Your task to perform on an android device: move a message to another label in the gmail app Image 0: 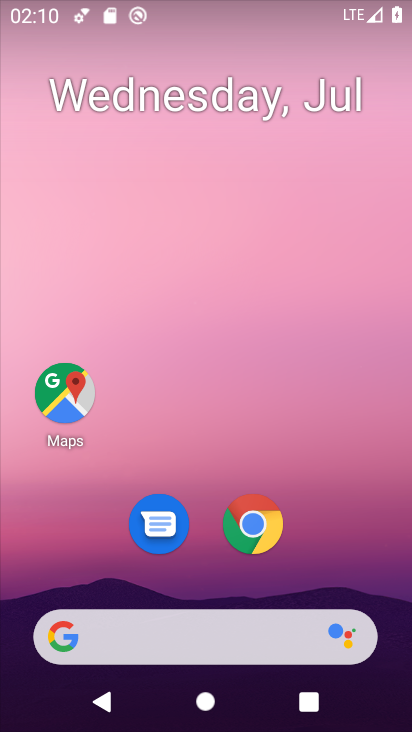
Step 0: drag from (316, 543) to (346, 58)
Your task to perform on an android device: move a message to another label in the gmail app Image 1: 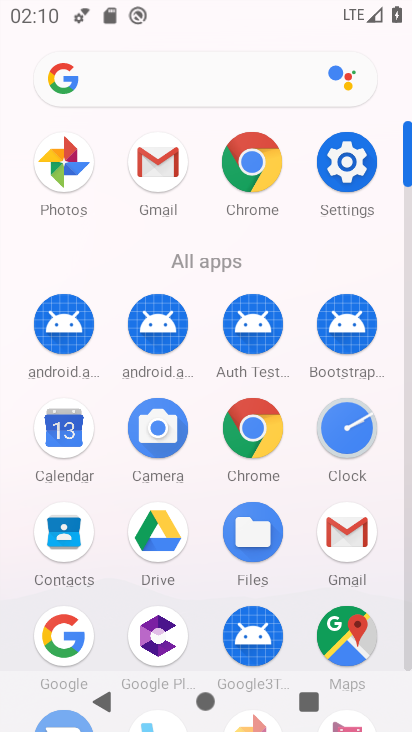
Step 1: click (161, 175)
Your task to perform on an android device: move a message to another label in the gmail app Image 2: 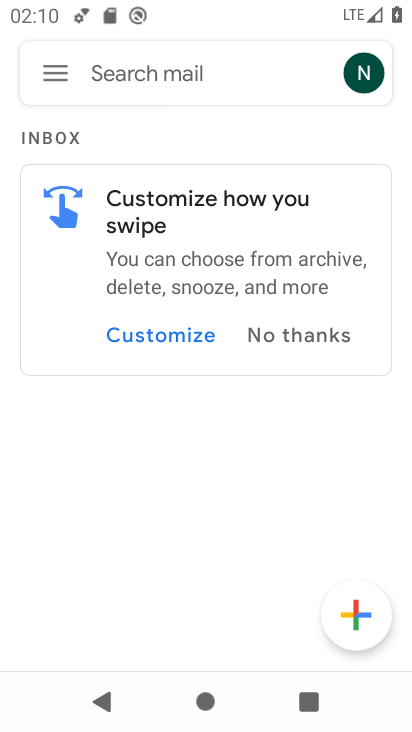
Step 2: click (318, 334)
Your task to perform on an android device: move a message to another label in the gmail app Image 3: 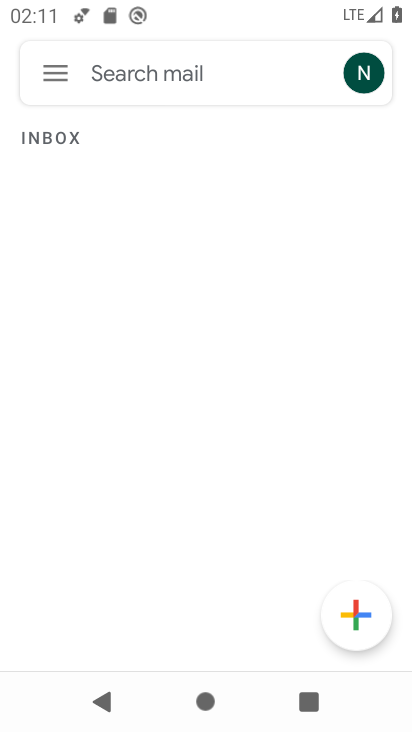
Step 3: click (56, 66)
Your task to perform on an android device: move a message to another label in the gmail app Image 4: 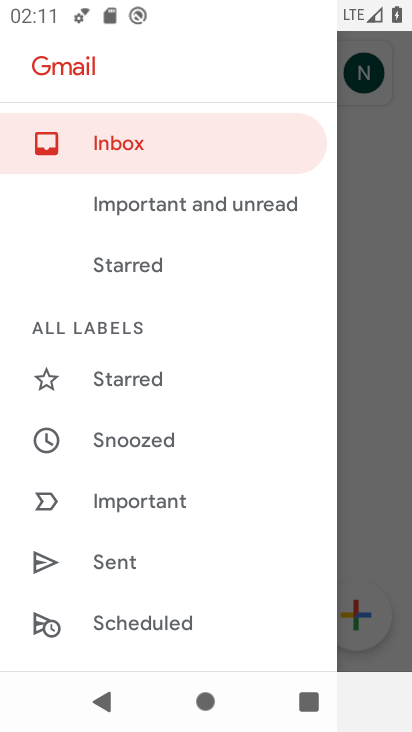
Step 4: drag from (196, 534) to (212, 134)
Your task to perform on an android device: move a message to another label in the gmail app Image 5: 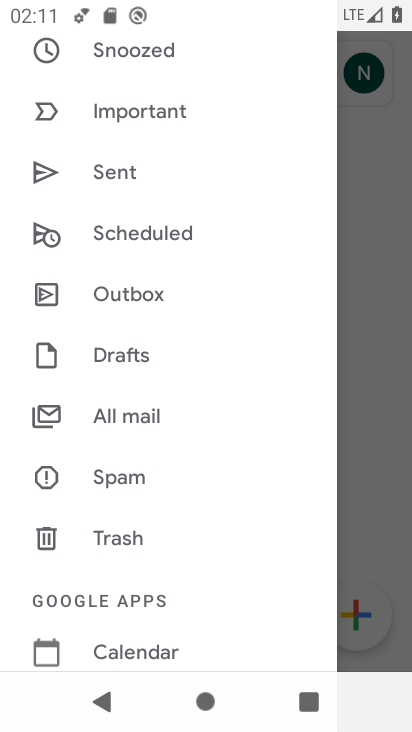
Step 5: click (165, 412)
Your task to perform on an android device: move a message to another label in the gmail app Image 6: 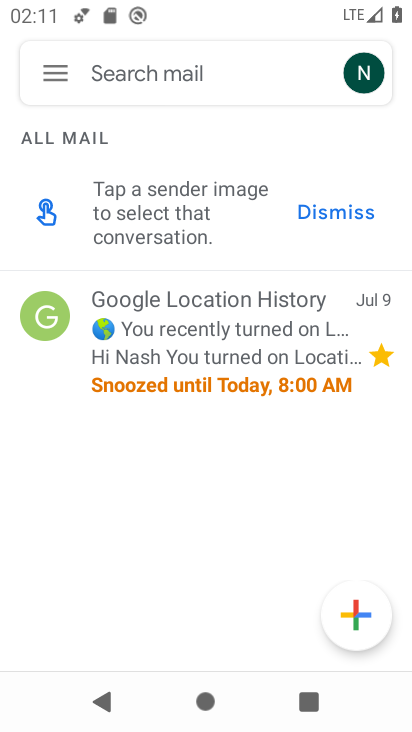
Step 6: click (233, 333)
Your task to perform on an android device: move a message to another label in the gmail app Image 7: 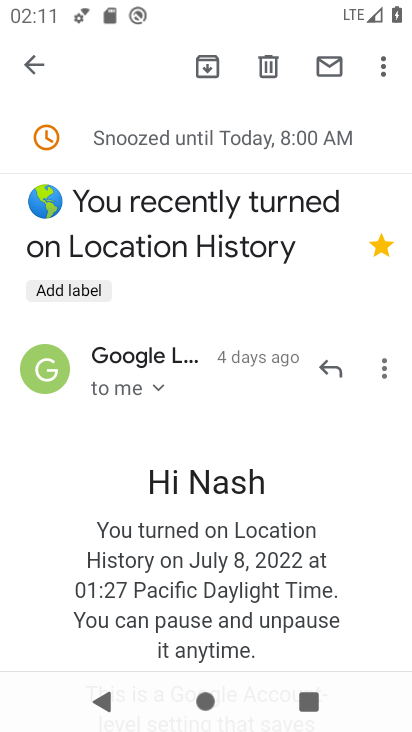
Step 7: click (382, 65)
Your task to perform on an android device: move a message to another label in the gmail app Image 8: 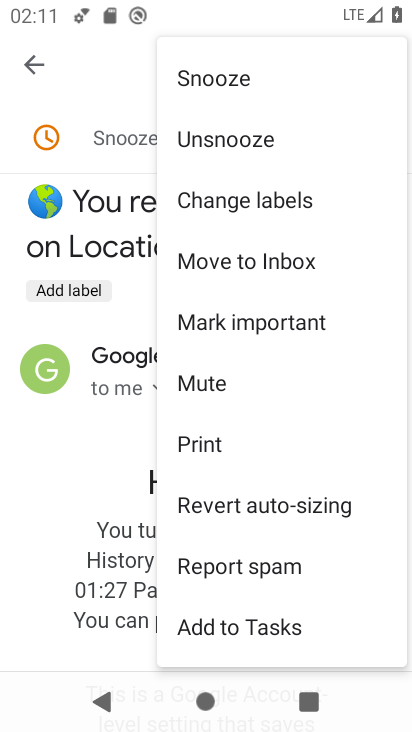
Step 8: click (269, 203)
Your task to perform on an android device: move a message to another label in the gmail app Image 9: 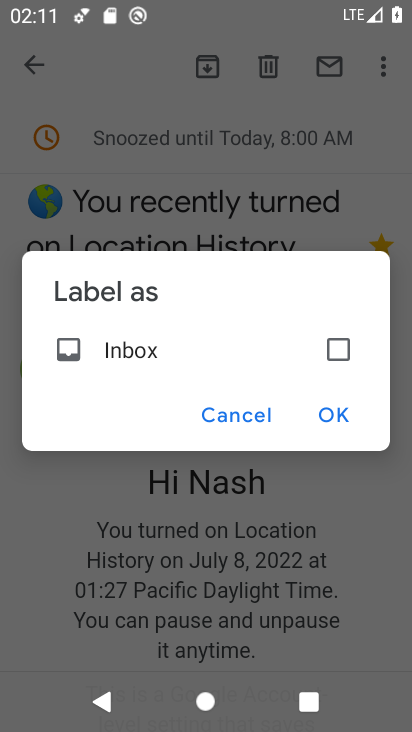
Step 9: click (339, 340)
Your task to perform on an android device: move a message to another label in the gmail app Image 10: 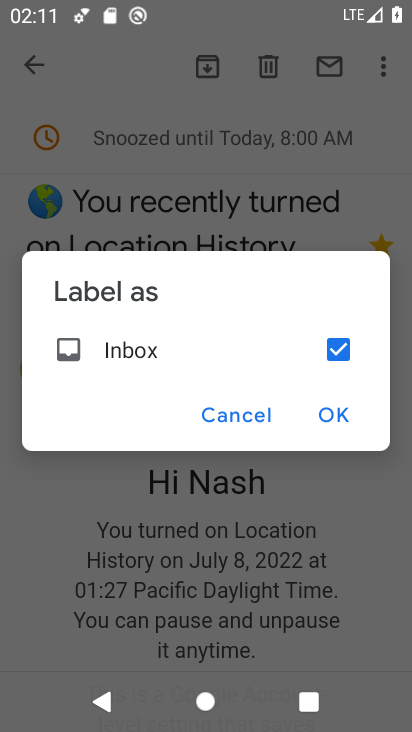
Step 10: click (336, 409)
Your task to perform on an android device: move a message to another label in the gmail app Image 11: 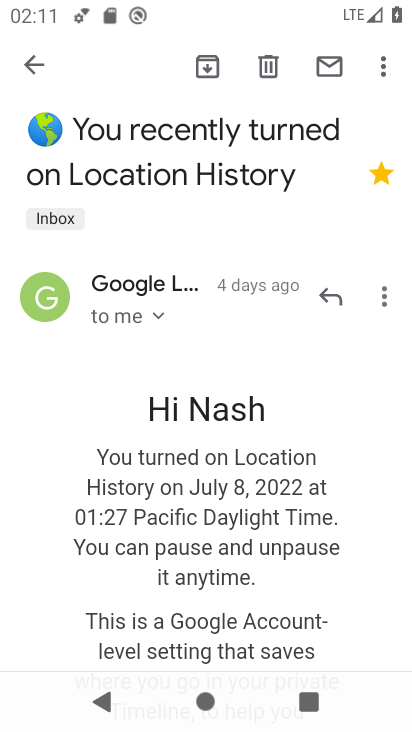
Step 11: task complete